Your task to perform on an android device: Search for seafood restaurants on Google Maps Image 0: 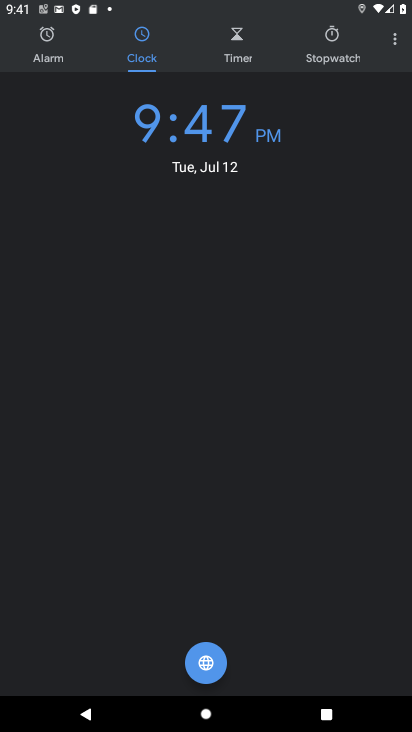
Step 0: press home button
Your task to perform on an android device: Search for seafood restaurants on Google Maps Image 1: 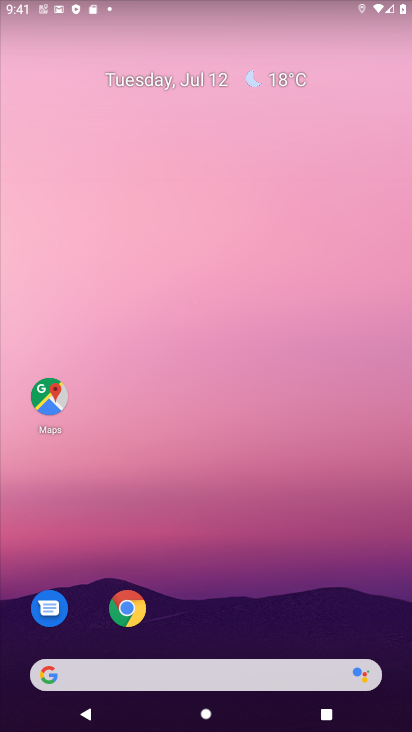
Step 1: click (42, 390)
Your task to perform on an android device: Search for seafood restaurants on Google Maps Image 2: 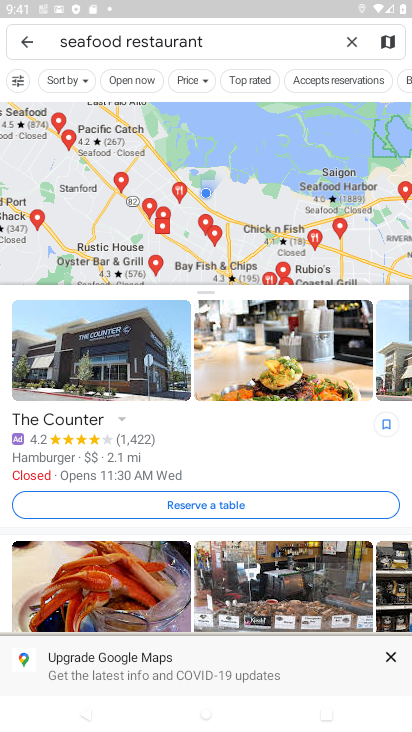
Step 2: task complete